Your task to perform on an android device: turn on javascript in the chrome app Image 0: 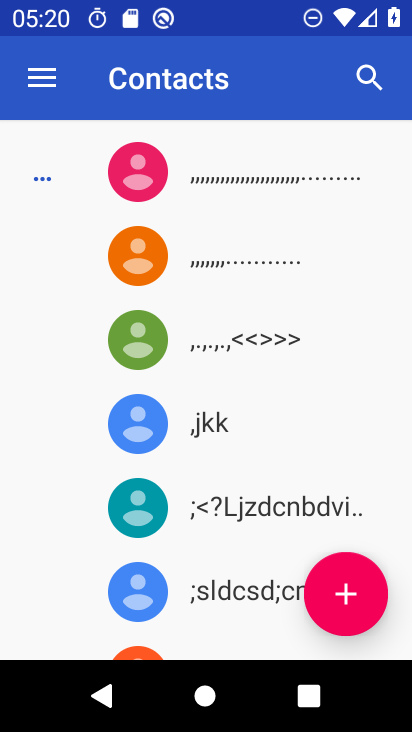
Step 0: press home button
Your task to perform on an android device: turn on javascript in the chrome app Image 1: 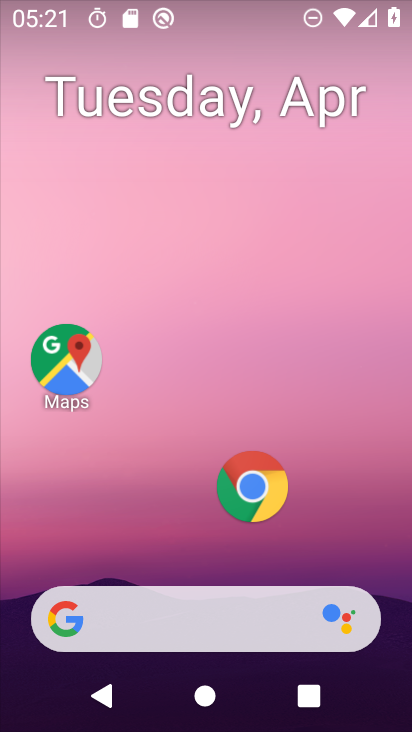
Step 1: click (256, 488)
Your task to perform on an android device: turn on javascript in the chrome app Image 2: 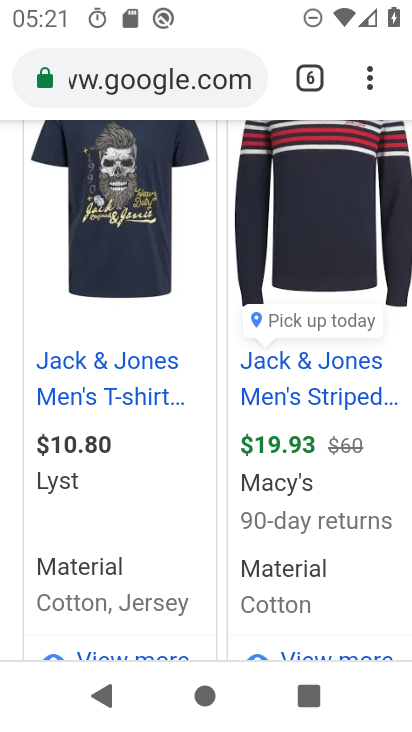
Step 2: drag from (373, 75) to (152, 545)
Your task to perform on an android device: turn on javascript in the chrome app Image 3: 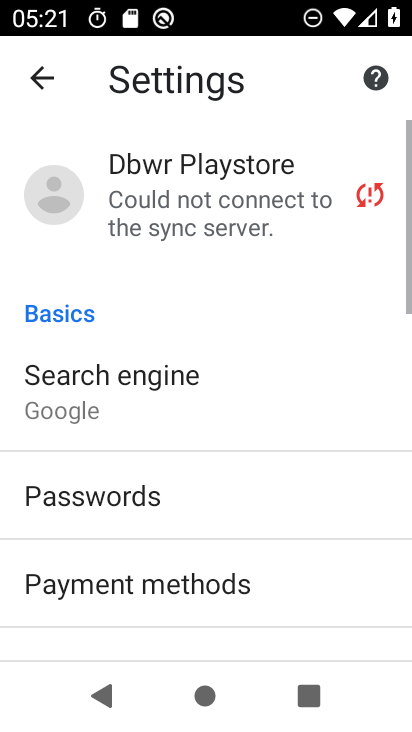
Step 3: drag from (149, 525) to (206, 179)
Your task to perform on an android device: turn on javascript in the chrome app Image 4: 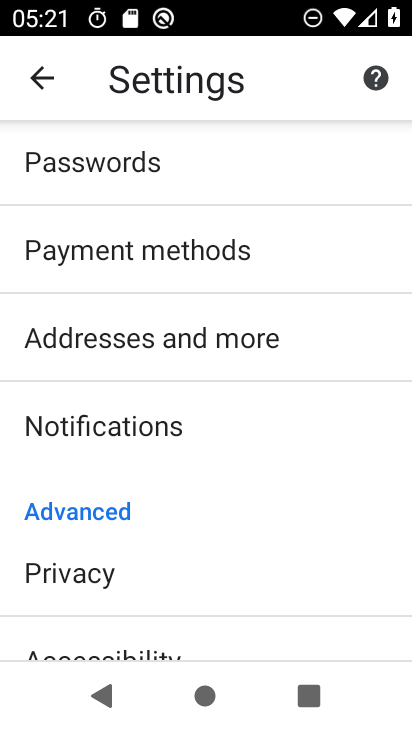
Step 4: drag from (157, 560) to (197, 160)
Your task to perform on an android device: turn on javascript in the chrome app Image 5: 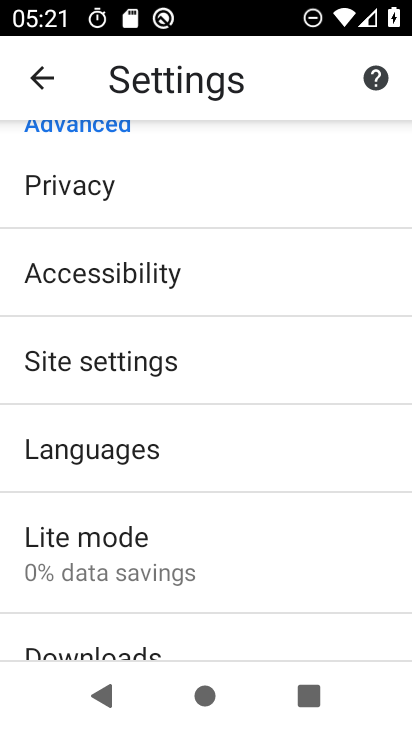
Step 5: click (137, 367)
Your task to perform on an android device: turn on javascript in the chrome app Image 6: 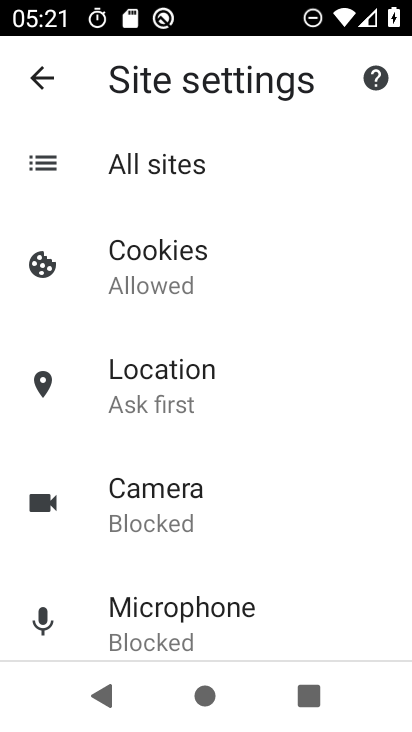
Step 6: drag from (183, 575) to (319, 81)
Your task to perform on an android device: turn on javascript in the chrome app Image 7: 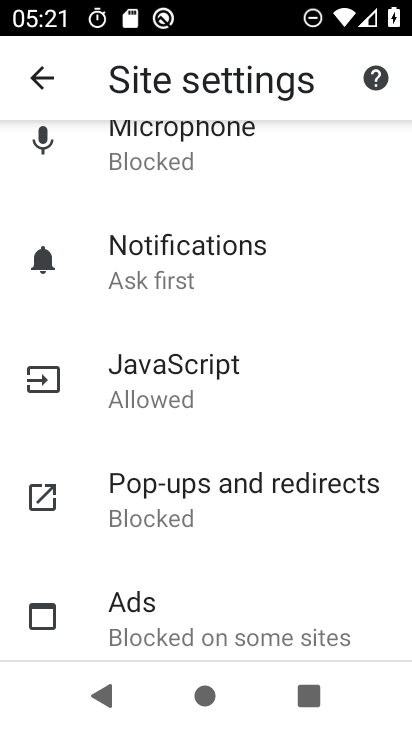
Step 7: click (140, 372)
Your task to perform on an android device: turn on javascript in the chrome app Image 8: 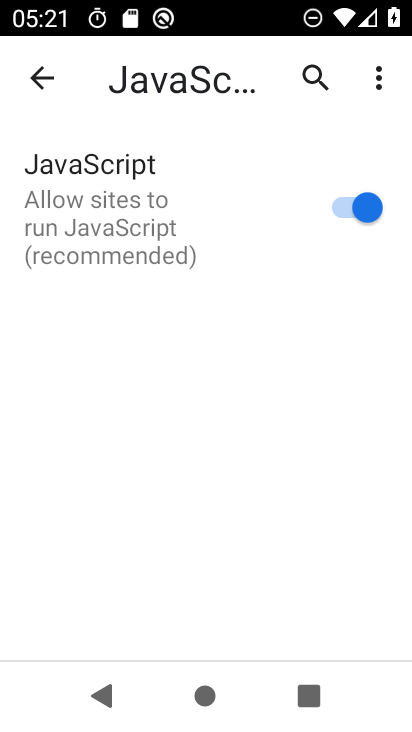
Step 8: task complete